Your task to perform on an android device: create a new album in the google photos Image 0: 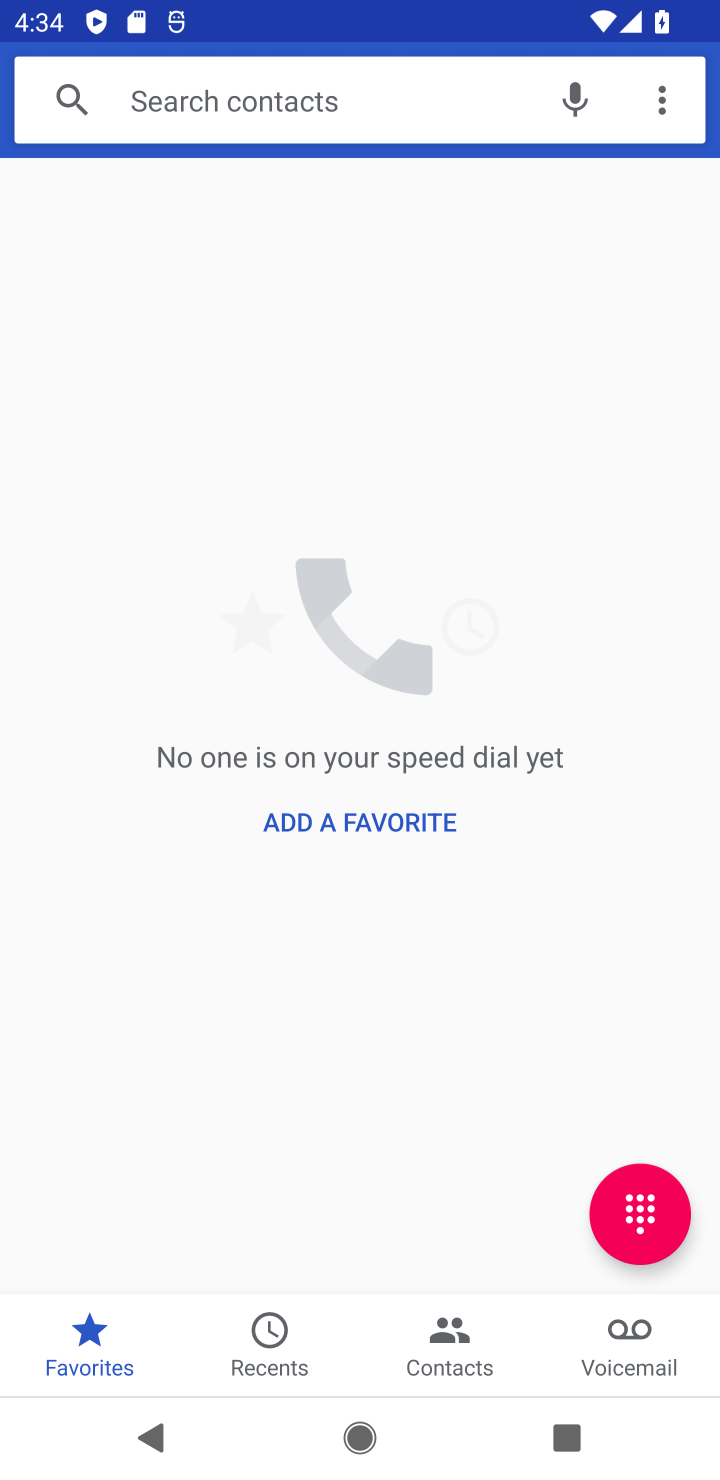
Step 0: press home button
Your task to perform on an android device: create a new album in the google photos Image 1: 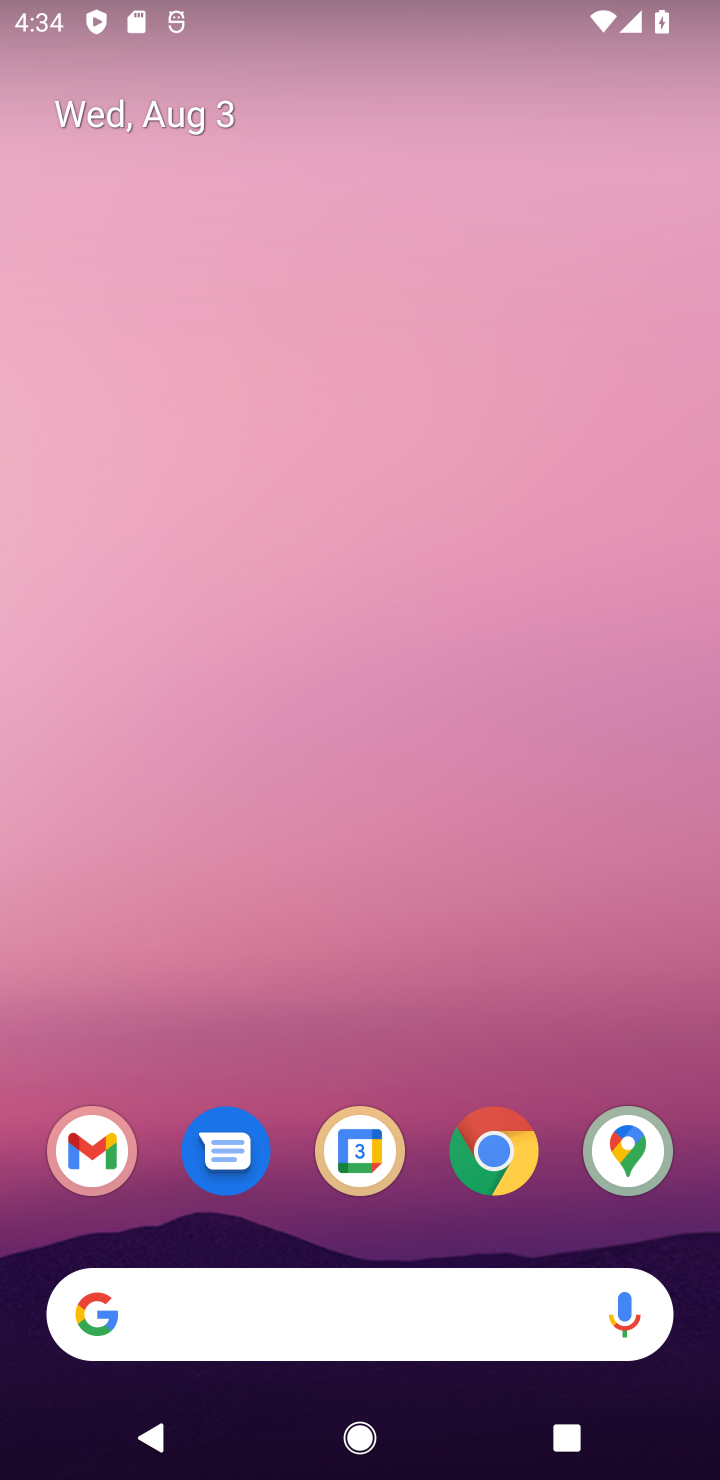
Step 1: drag from (550, 1052) to (515, 473)
Your task to perform on an android device: create a new album in the google photos Image 2: 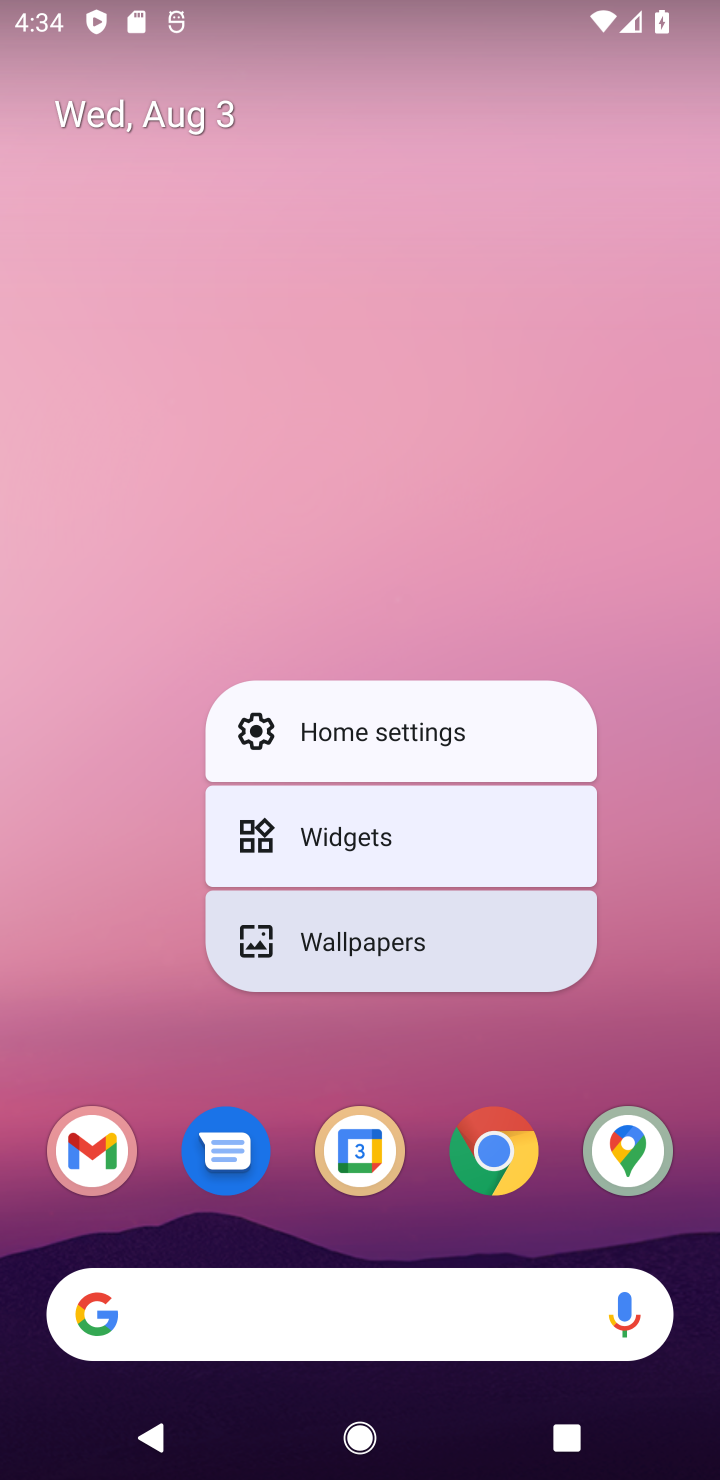
Step 2: click (48, 870)
Your task to perform on an android device: create a new album in the google photos Image 3: 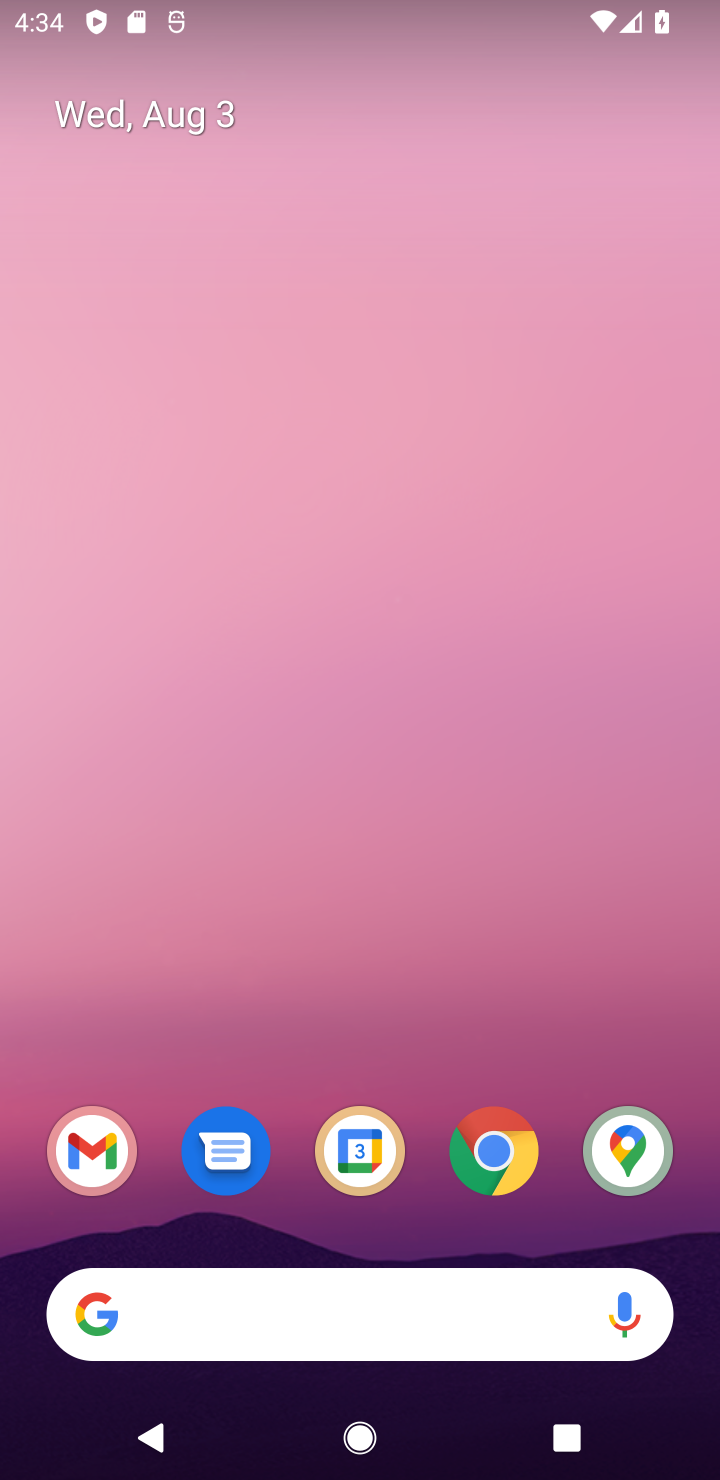
Step 3: drag from (357, 1002) to (324, 173)
Your task to perform on an android device: create a new album in the google photos Image 4: 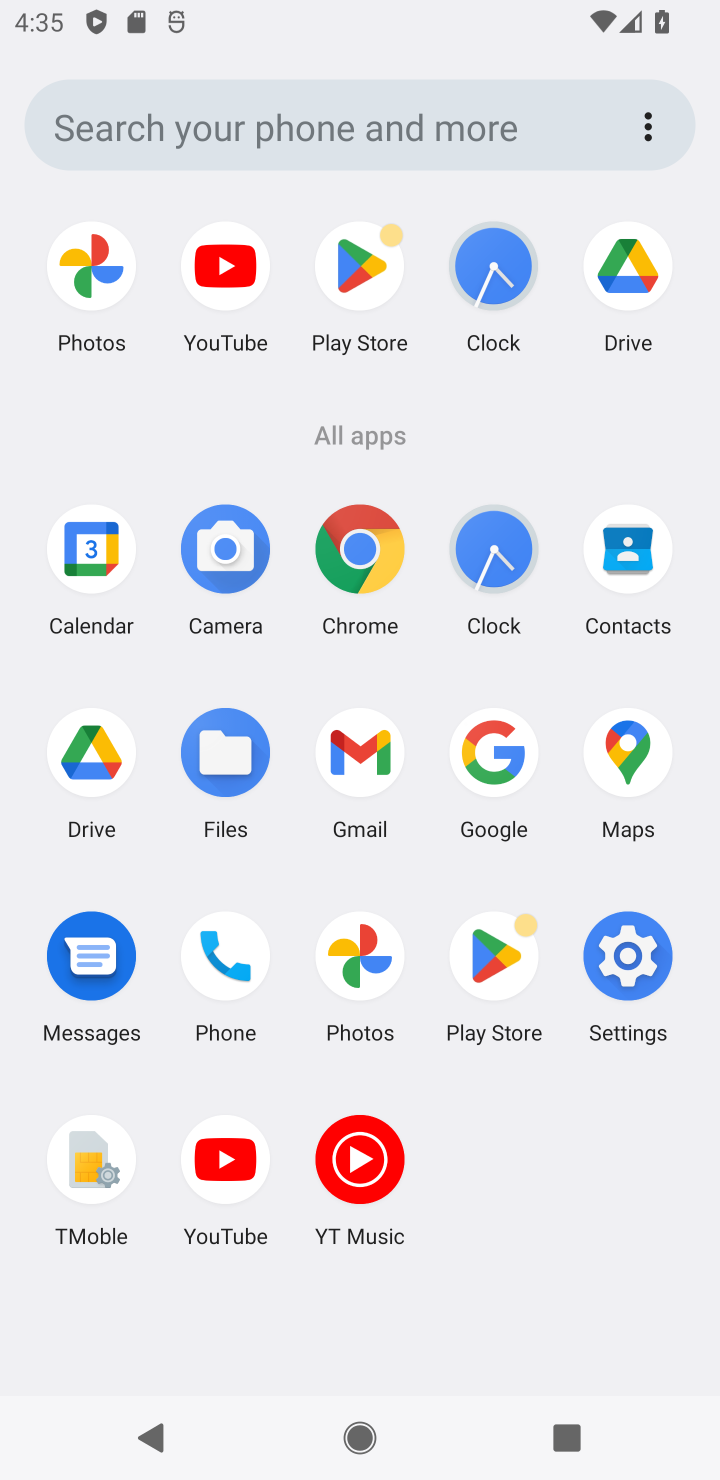
Step 4: click (358, 983)
Your task to perform on an android device: create a new album in the google photos Image 5: 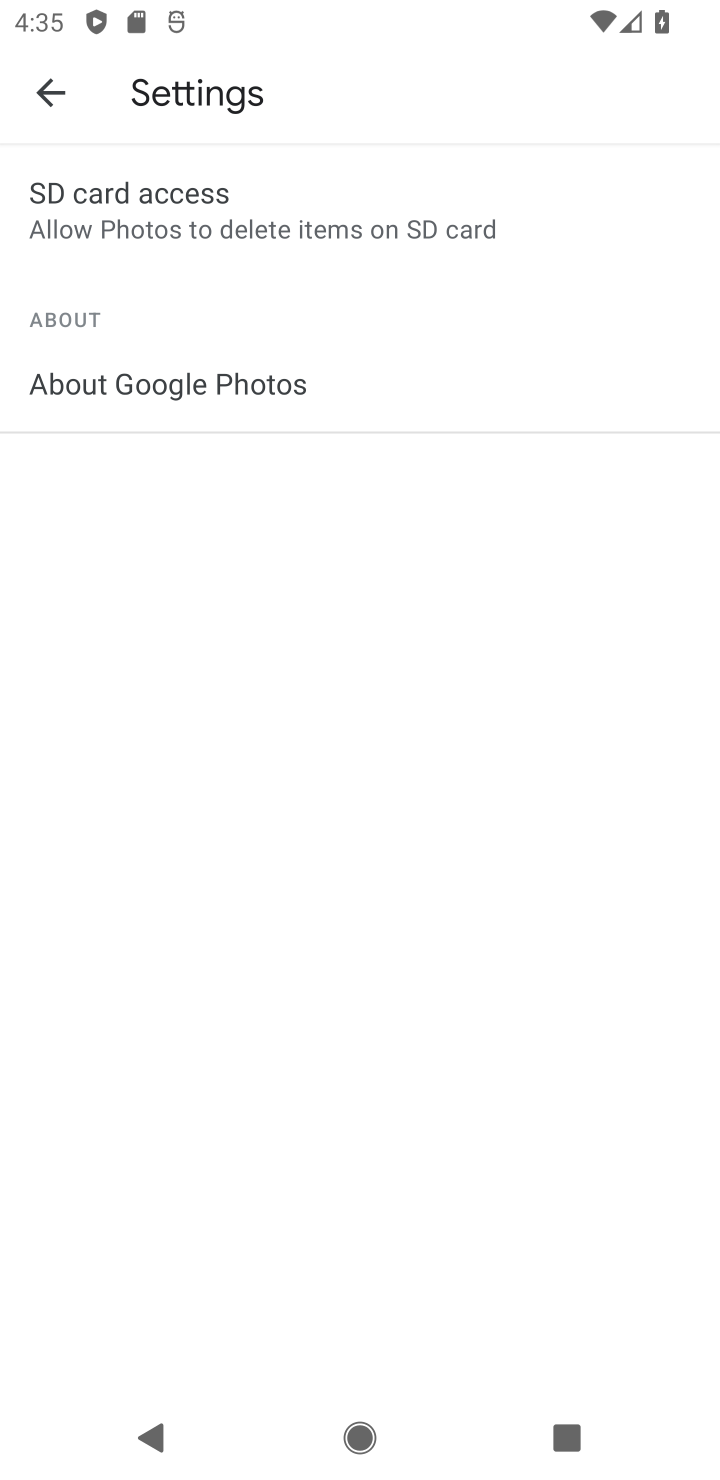
Step 5: click (36, 84)
Your task to perform on an android device: create a new album in the google photos Image 6: 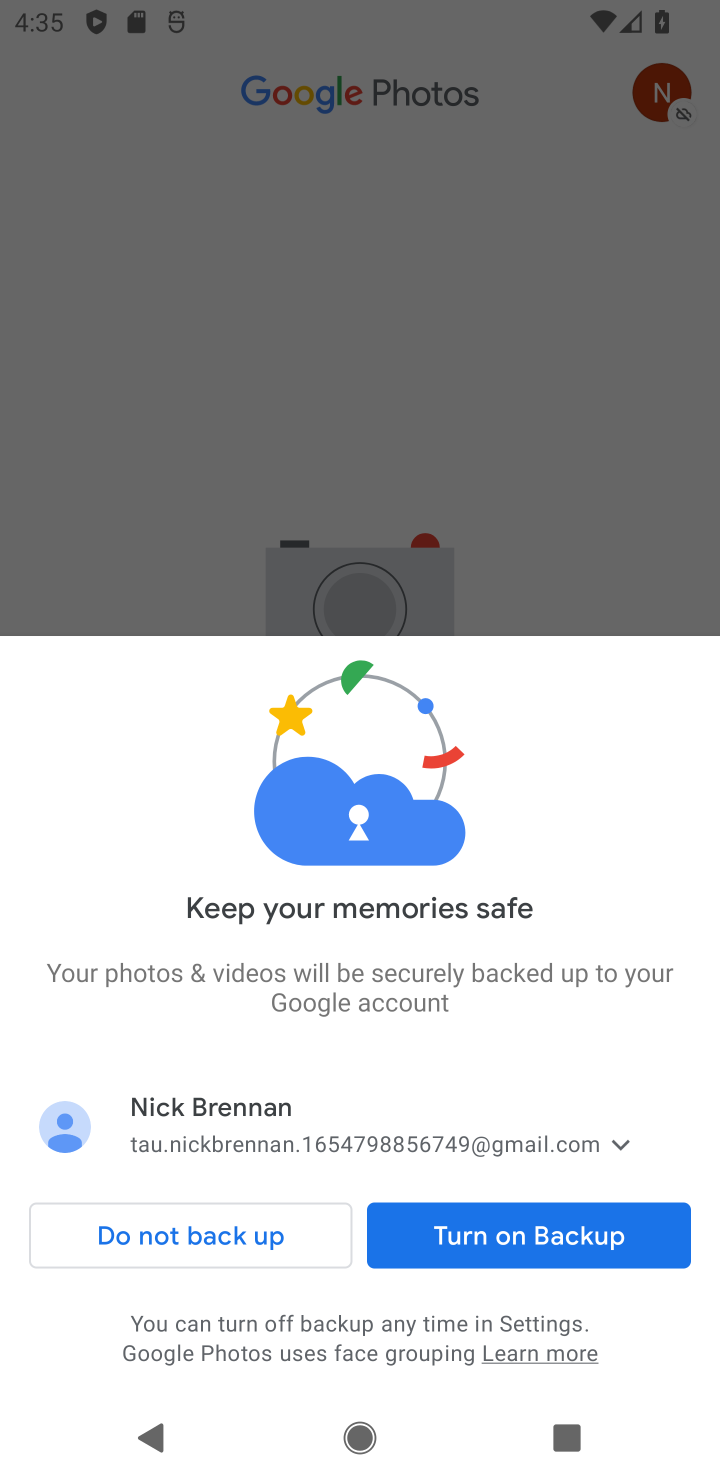
Step 6: click (326, 1237)
Your task to perform on an android device: create a new album in the google photos Image 7: 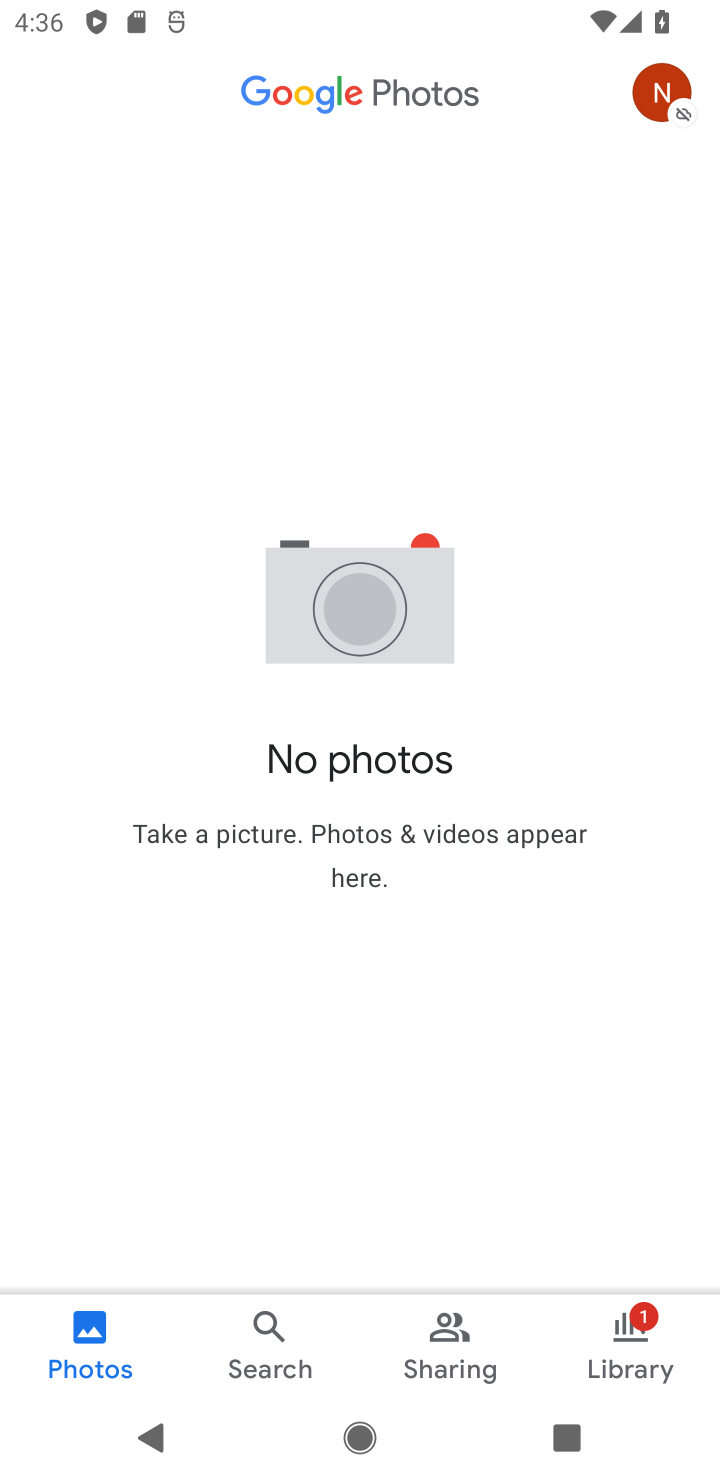
Step 7: task complete